Your task to perform on an android device: Go to Maps Image 0: 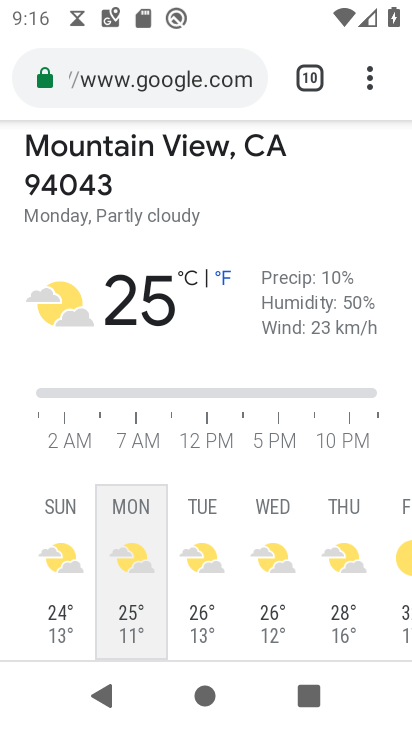
Step 0: press home button
Your task to perform on an android device: Go to Maps Image 1: 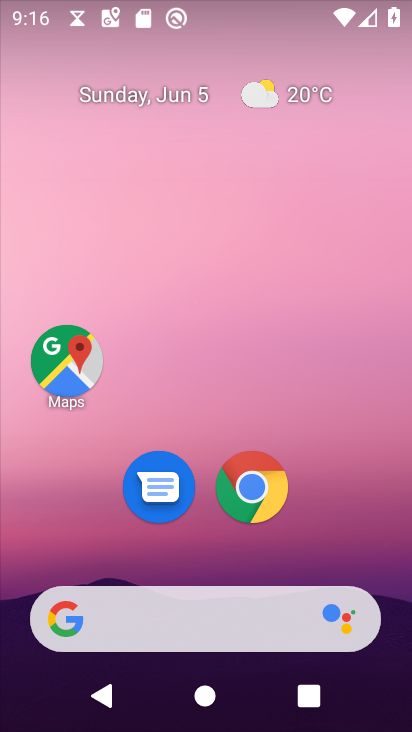
Step 1: click (64, 370)
Your task to perform on an android device: Go to Maps Image 2: 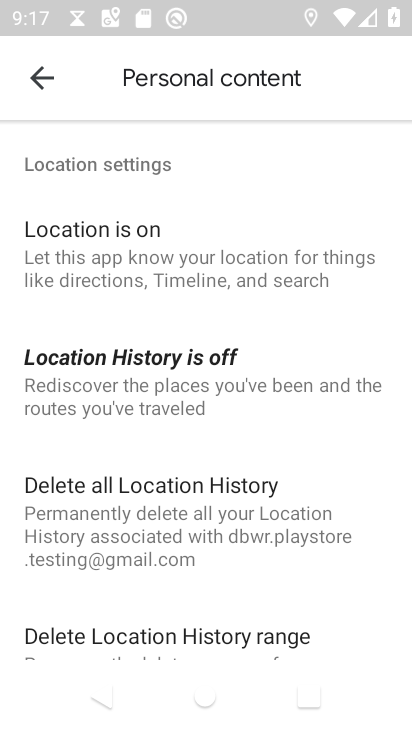
Step 2: task complete